Your task to perform on an android device: check storage Image 0: 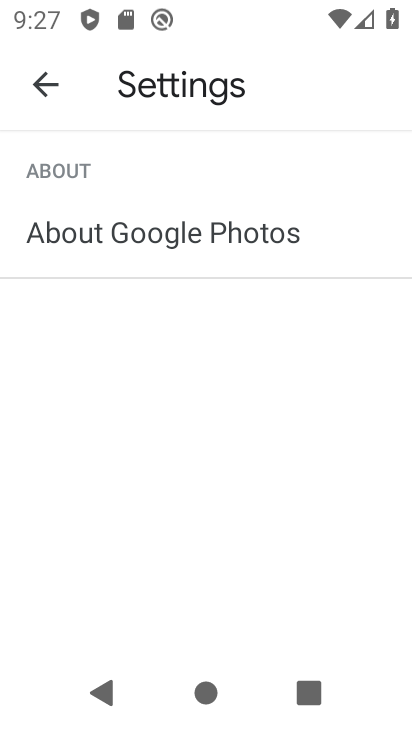
Step 0: press home button
Your task to perform on an android device: check storage Image 1: 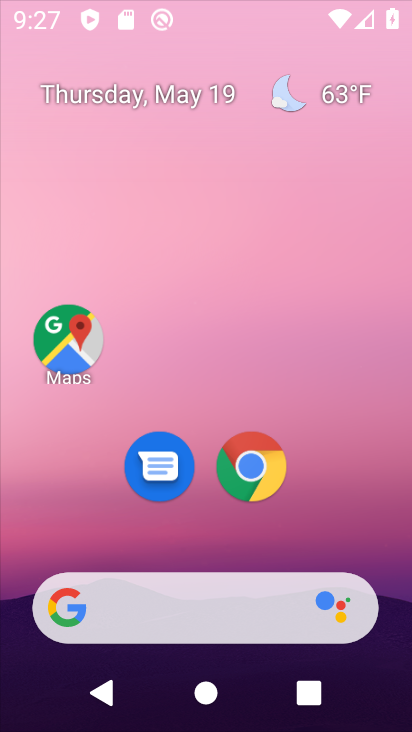
Step 1: drag from (394, 646) to (348, 70)
Your task to perform on an android device: check storage Image 2: 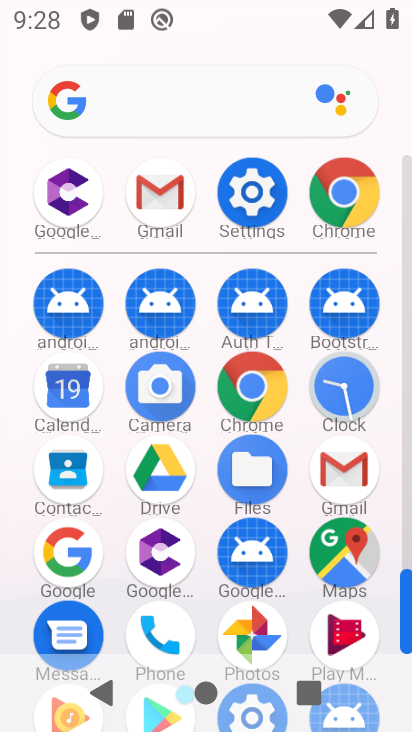
Step 2: click (243, 208)
Your task to perform on an android device: check storage Image 3: 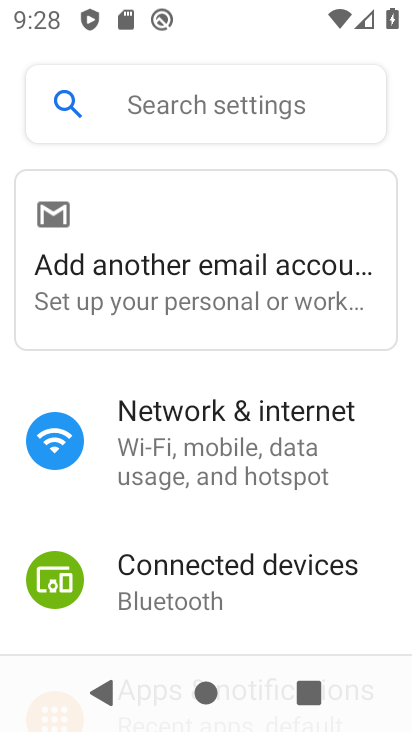
Step 3: drag from (170, 586) to (224, 103)
Your task to perform on an android device: check storage Image 4: 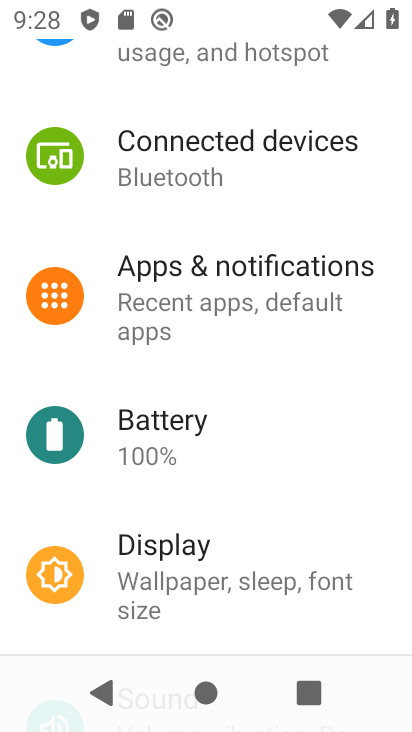
Step 4: drag from (191, 585) to (246, 137)
Your task to perform on an android device: check storage Image 5: 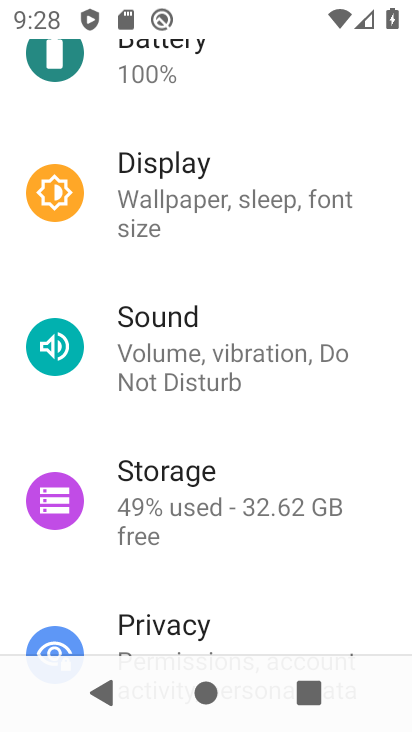
Step 5: click (167, 515)
Your task to perform on an android device: check storage Image 6: 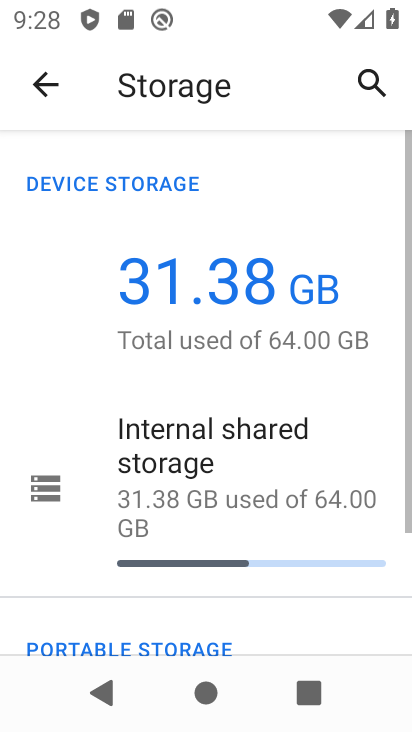
Step 6: click (230, 476)
Your task to perform on an android device: check storage Image 7: 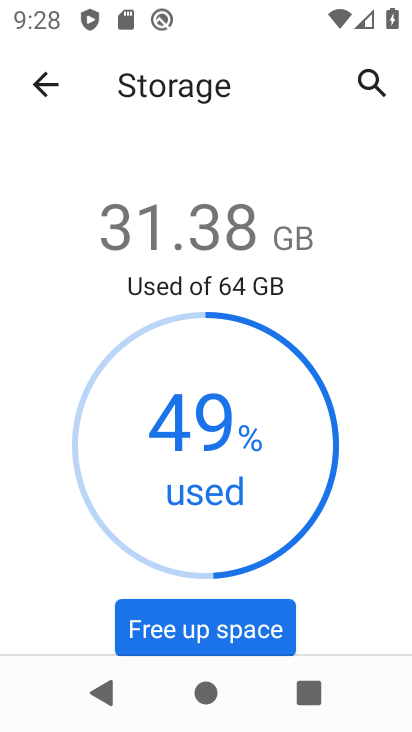
Step 7: task complete